Your task to perform on an android device: delete the emails in spam in the gmail app Image 0: 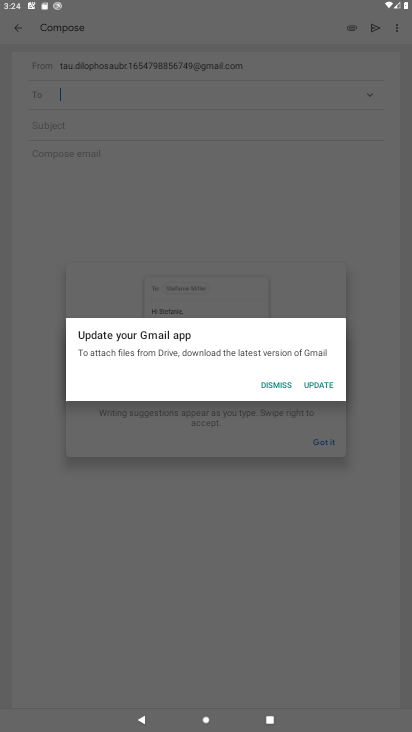
Step 0: press home button
Your task to perform on an android device: delete the emails in spam in the gmail app Image 1: 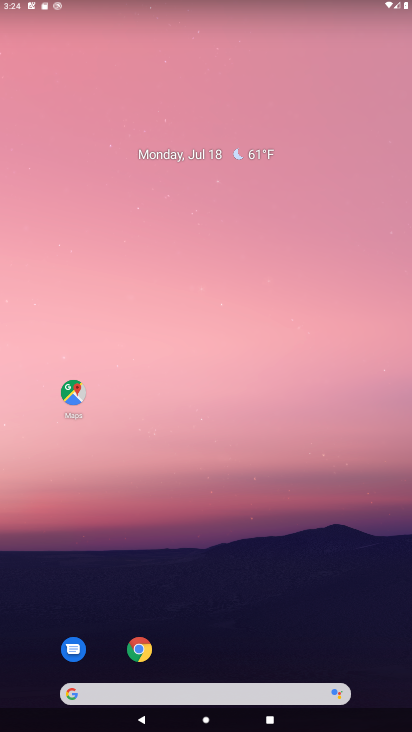
Step 1: click (217, 82)
Your task to perform on an android device: delete the emails in spam in the gmail app Image 2: 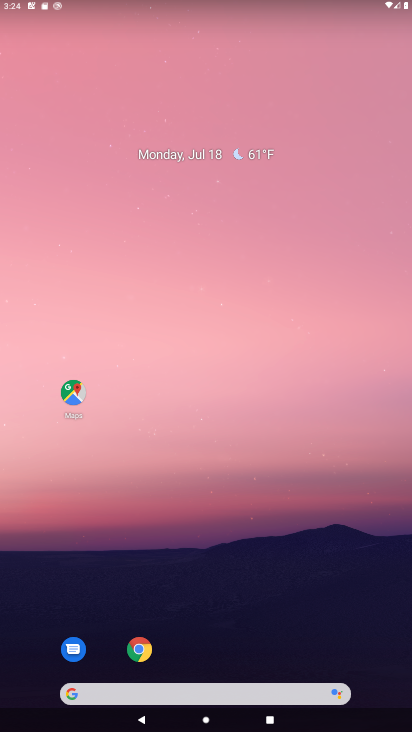
Step 2: drag from (230, 575) to (216, 150)
Your task to perform on an android device: delete the emails in spam in the gmail app Image 3: 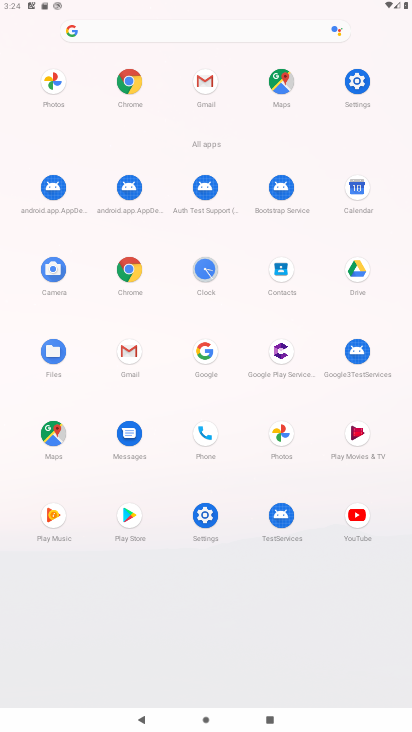
Step 3: click (205, 82)
Your task to perform on an android device: delete the emails in spam in the gmail app Image 4: 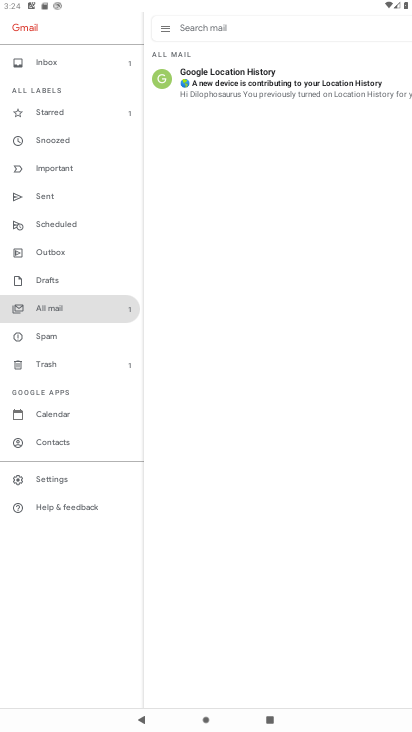
Step 4: click (69, 343)
Your task to perform on an android device: delete the emails in spam in the gmail app Image 5: 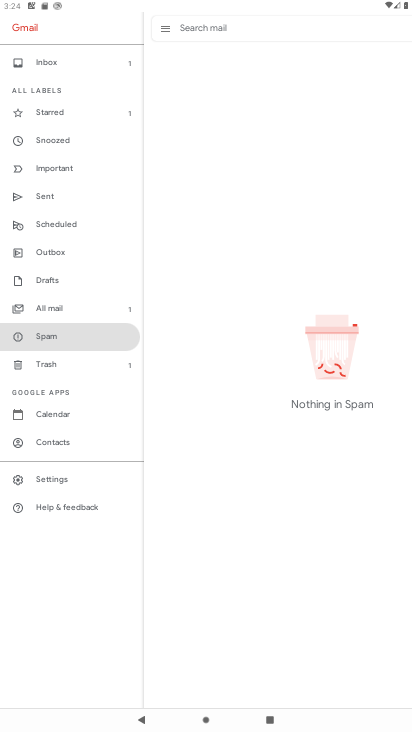
Step 5: task complete